Your task to perform on an android device: toggle show notifications on the lock screen Image 0: 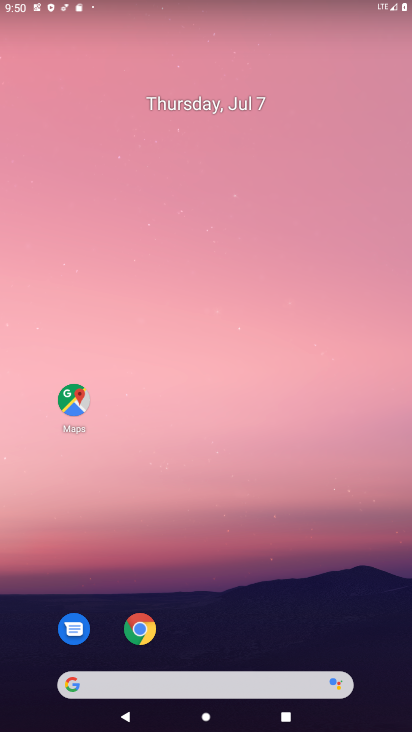
Step 0: drag from (113, 650) to (173, 84)
Your task to perform on an android device: toggle show notifications on the lock screen Image 1: 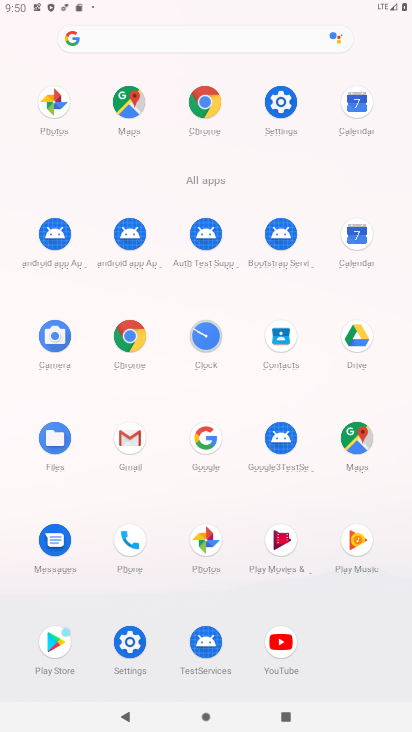
Step 1: click (137, 652)
Your task to perform on an android device: toggle show notifications on the lock screen Image 2: 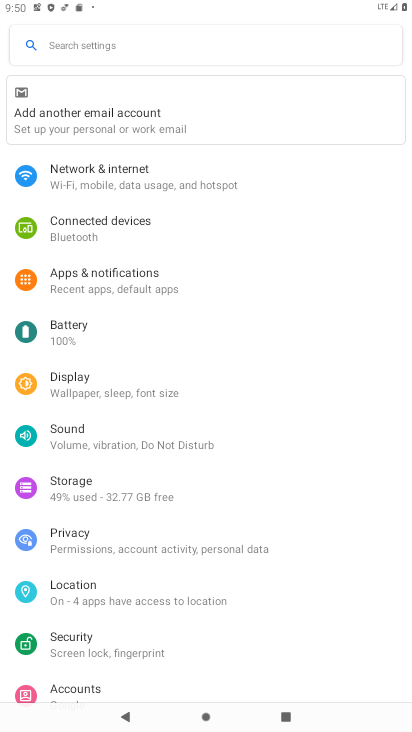
Step 2: click (147, 296)
Your task to perform on an android device: toggle show notifications on the lock screen Image 3: 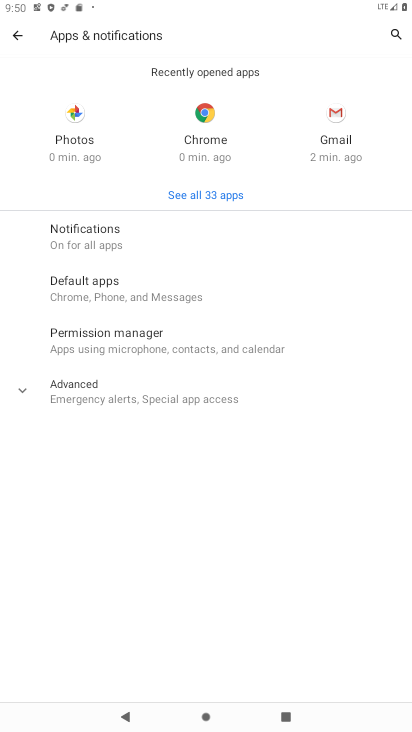
Step 3: click (133, 237)
Your task to perform on an android device: toggle show notifications on the lock screen Image 4: 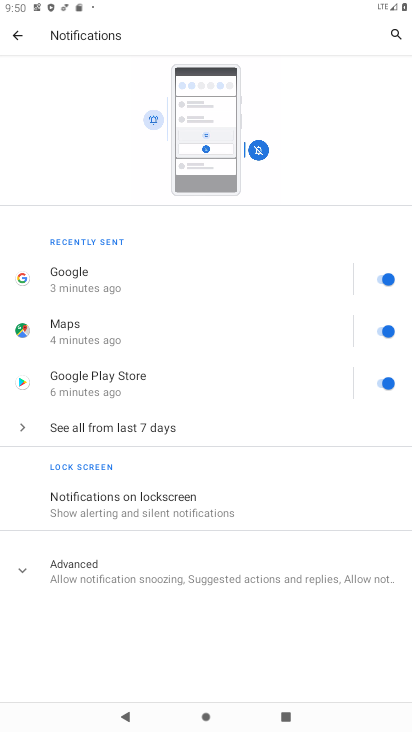
Step 4: click (194, 505)
Your task to perform on an android device: toggle show notifications on the lock screen Image 5: 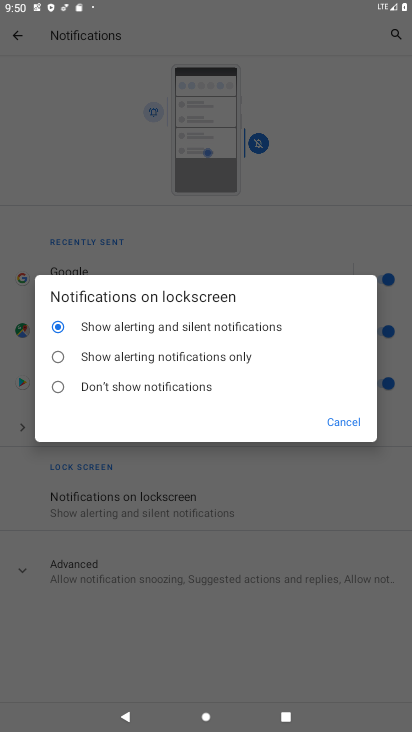
Step 5: click (99, 378)
Your task to perform on an android device: toggle show notifications on the lock screen Image 6: 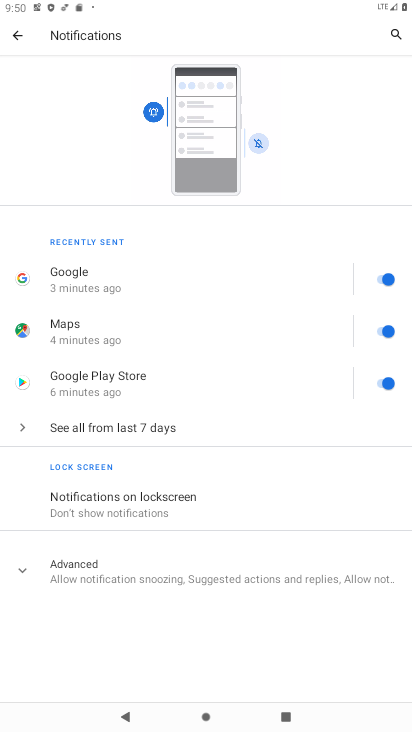
Step 6: task complete